Your task to perform on an android device: Open notification settings Image 0: 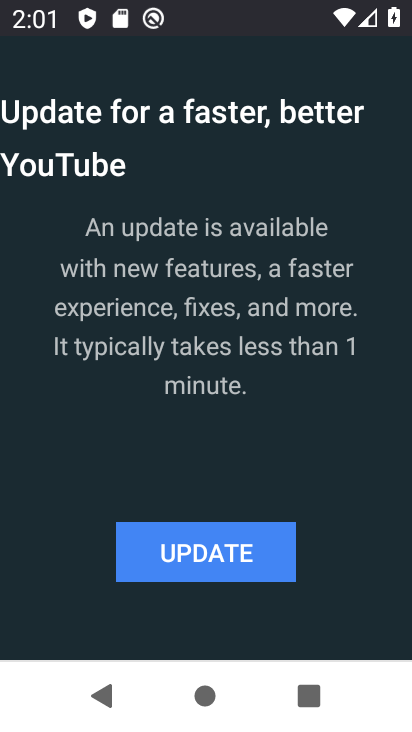
Step 0: press back button
Your task to perform on an android device: Open notification settings Image 1: 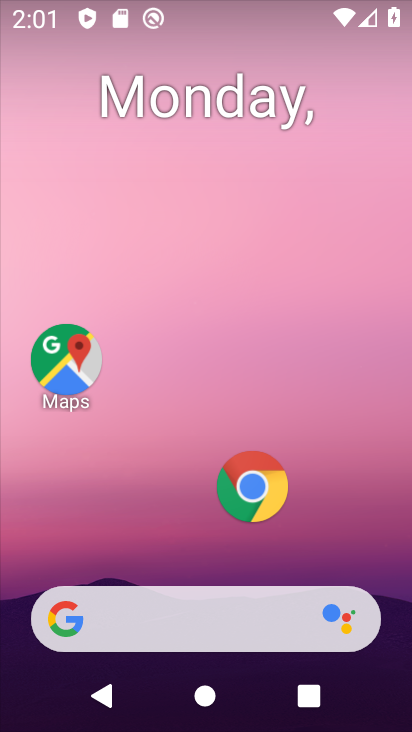
Step 1: drag from (145, 531) to (252, 19)
Your task to perform on an android device: Open notification settings Image 2: 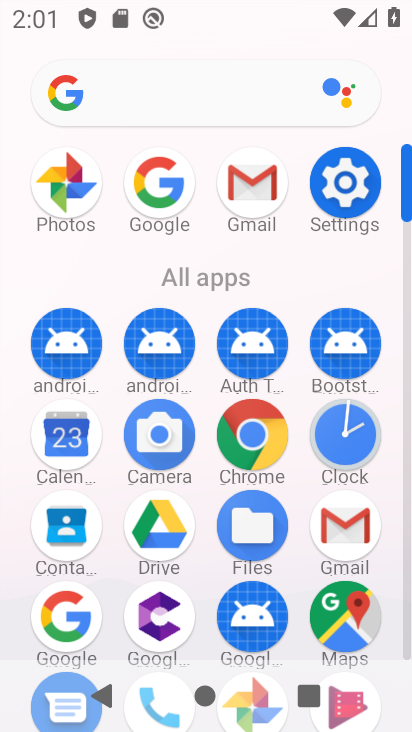
Step 2: click (355, 172)
Your task to perform on an android device: Open notification settings Image 3: 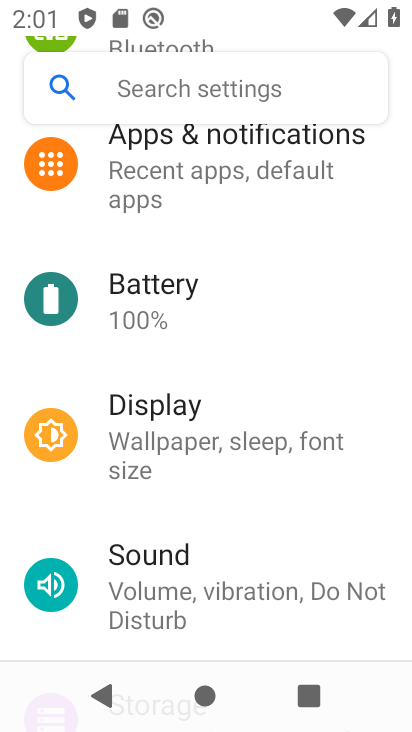
Step 3: click (190, 166)
Your task to perform on an android device: Open notification settings Image 4: 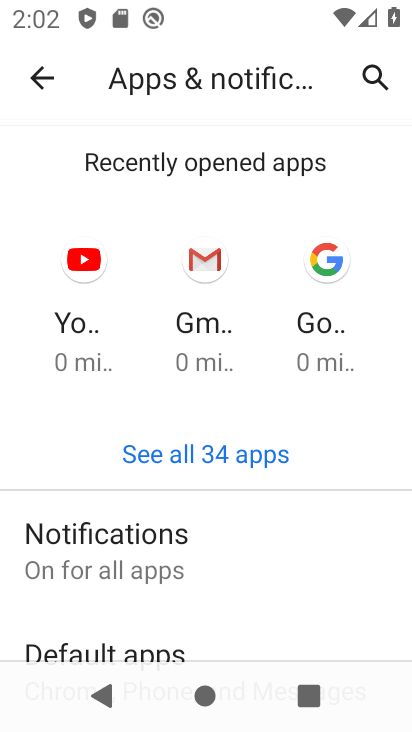
Step 4: click (132, 559)
Your task to perform on an android device: Open notification settings Image 5: 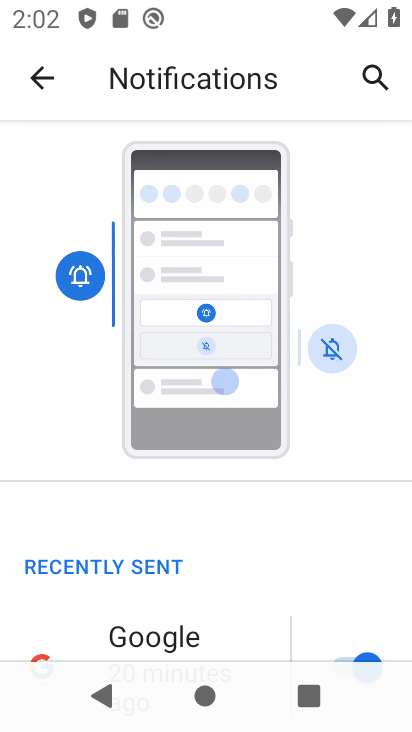
Step 5: task complete